Your task to perform on an android device: turn off picture-in-picture Image 0: 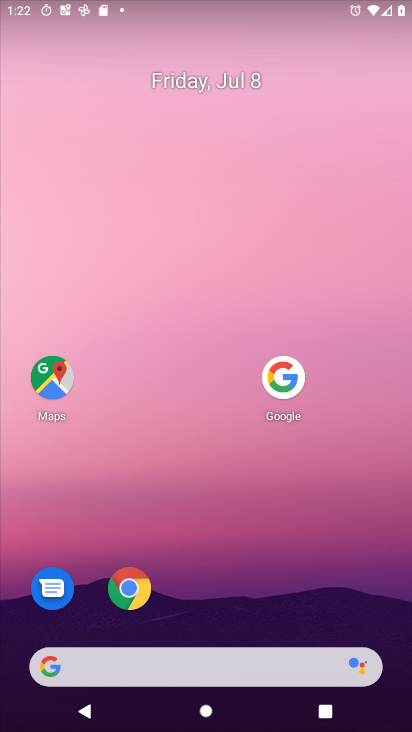
Step 0: click (136, 590)
Your task to perform on an android device: turn off picture-in-picture Image 1: 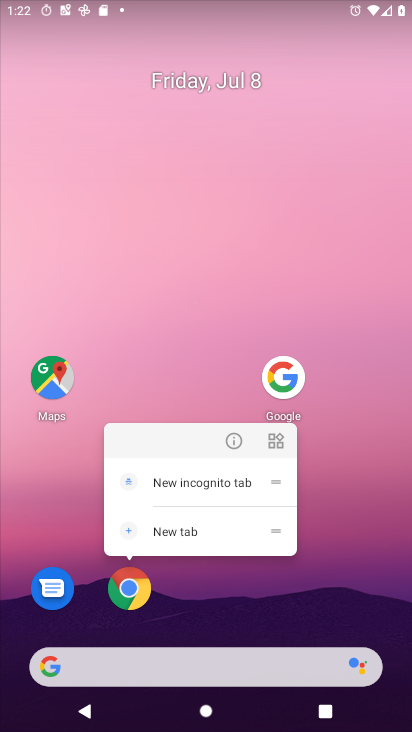
Step 1: click (236, 437)
Your task to perform on an android device: turn off picture-in-picture Image 2: 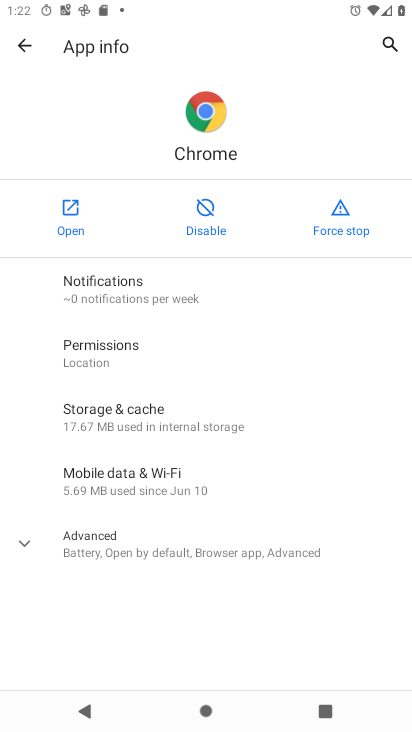
Step 2: click (114, 536)
Your task to perform on an android device: turn off picture-in-picture Image 3: 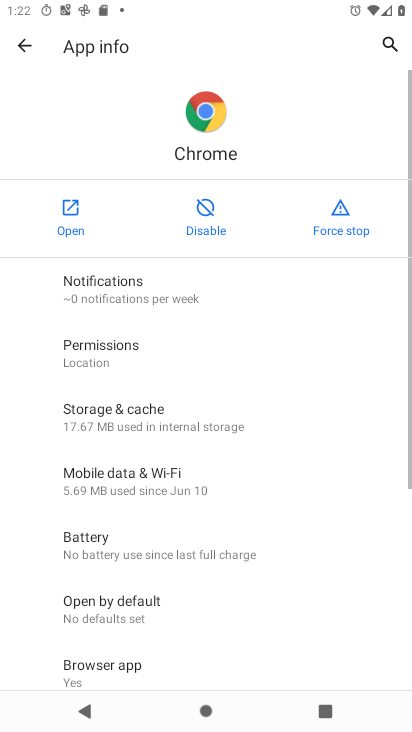
Step 3: drag from (206, 626) to (387, 374)
Your task to perform on an android device: turn off picture-in-picture Image 4: 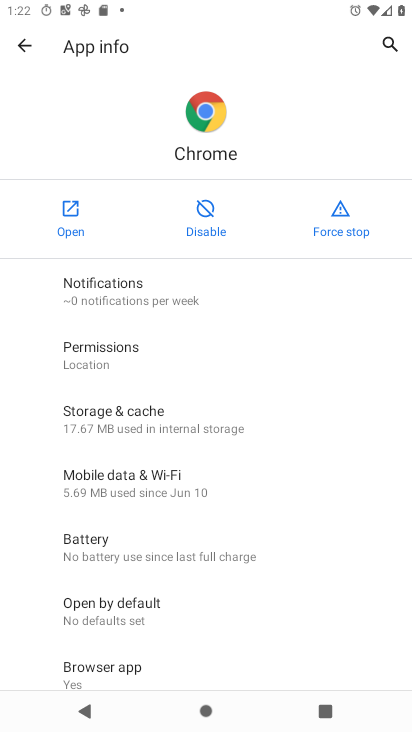
Step 4: drag from (166, 614) to (300, 3)
Your task to perform on an android device: turn off picture-in-picture Image 5: 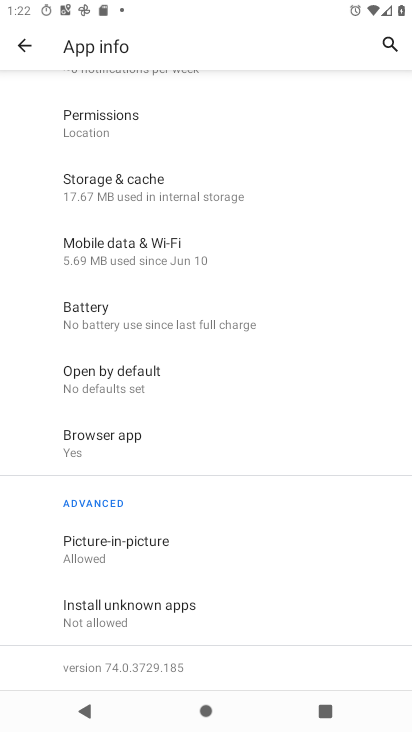
Step 5: click (114, 557)
Your task to perform on an android device: turn off picture-in-picture Image 6: 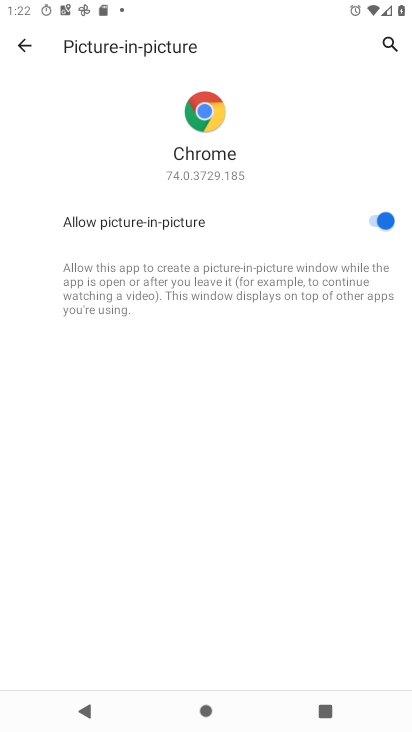
Step 6: click (373, 213)
Your task to perform on an android device: turn off picture-in-picture Image 7: 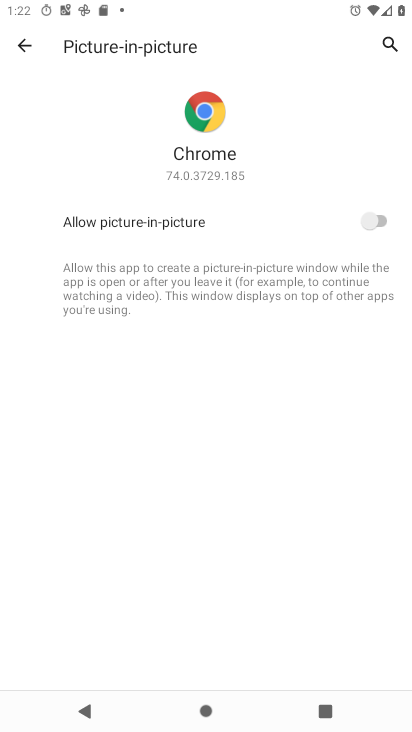
Step 7: task complete